Your task to perform on an android device: Show me productivity apps on the Play Store Image 0: 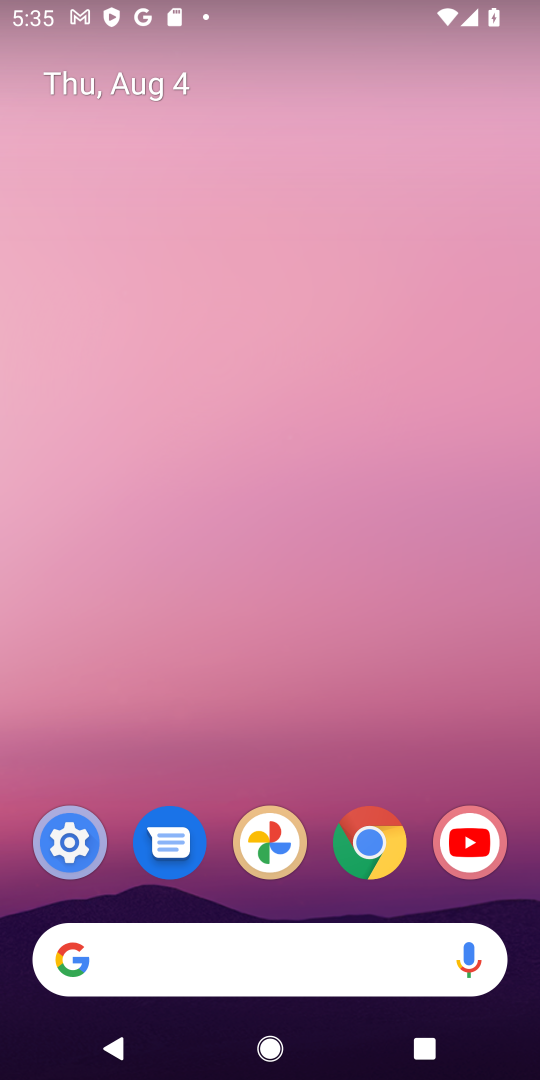
Step 0: drag from (467, 773) to (397, 127)
Your task to perform on an android device: Show me productivity apps on the Play Store Image 1: 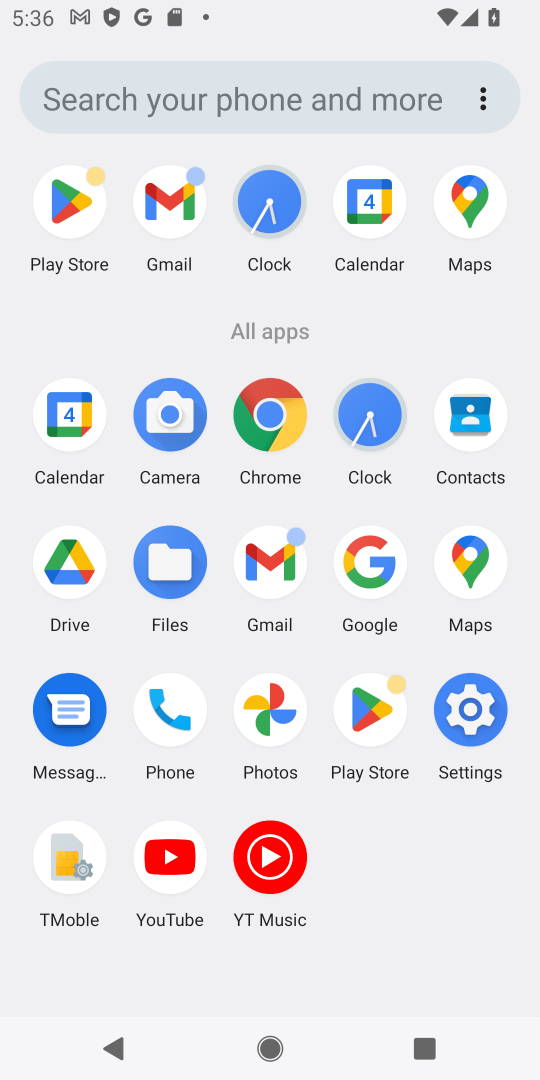
Step 1: click (374, 699)
Your task to perform on an android device: Show me productivity apps on the Play Store Image 2: 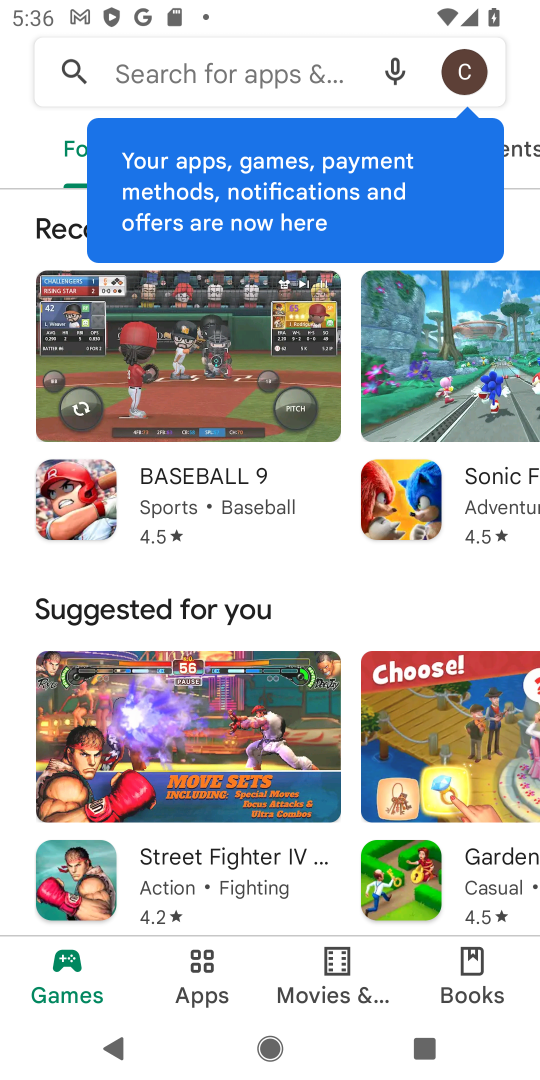
Step 2: click (185, 969)
Your task to perform on an android device: Show me productivity apps on the Play Store Image 3: 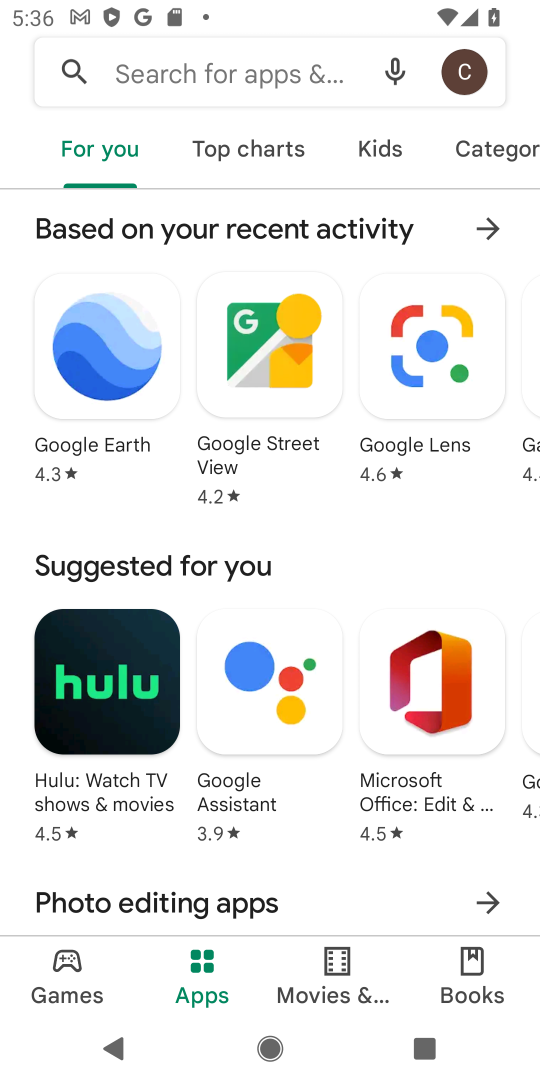
Step 3: task complete